Your task to perform on an android device: clear all cookies in the chrome app Image 0: 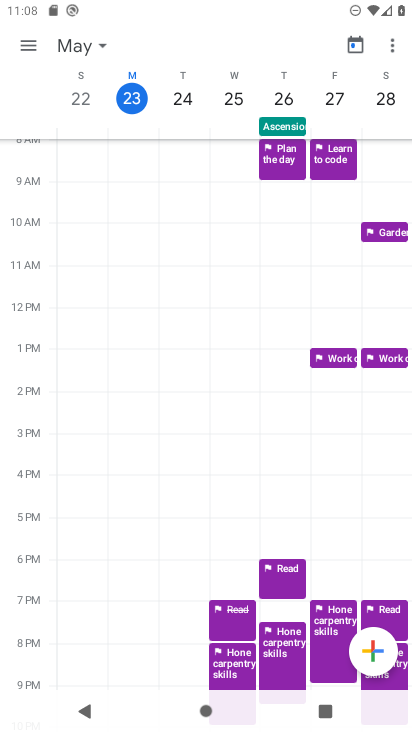
Step 0: press home button
Your task to perform on an android device: clear all cookies in the chrome app Image 1: 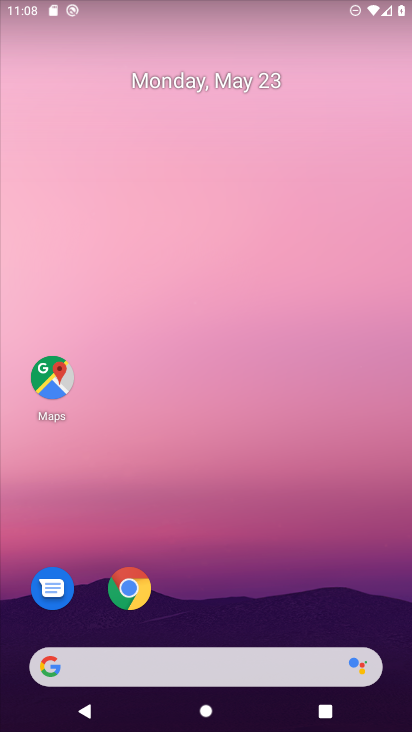
Step 1: click (127, 593)
Your task to perform on an android device: clear all cookies in the chrome app Image 2: 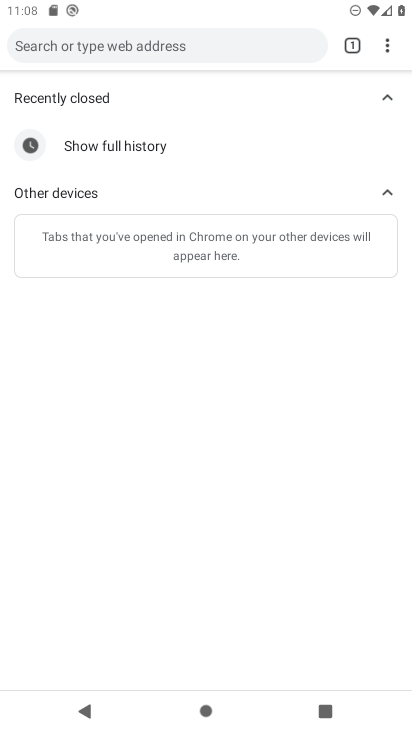
Step 2: click (390, 47)
Your task to perform on an android device: clear all cookies in the chrome app Image 3: 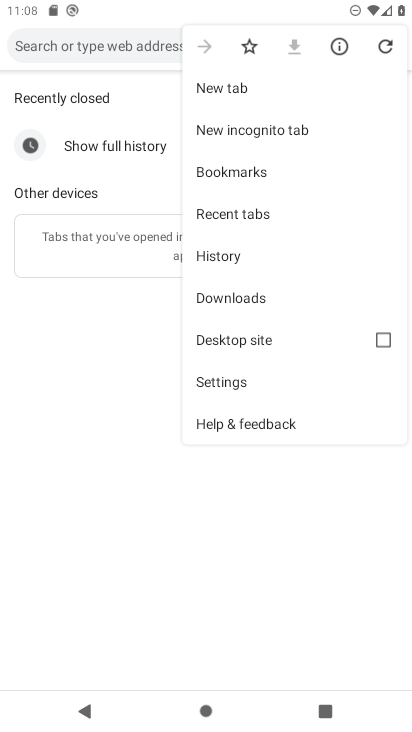
Step 3: click (221, 249)
Your task to perform on an android device: clear all cookies in the chrome app Image 4: 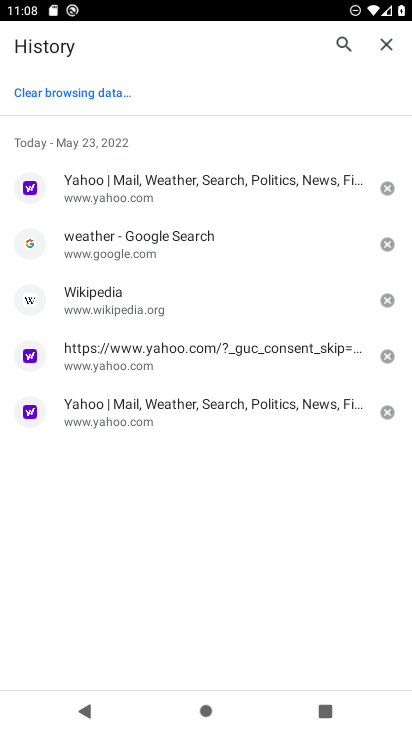
Step 4: click (80, 97)
Your task to perform on an android device: clear all cookies in the chrome app Image 5: 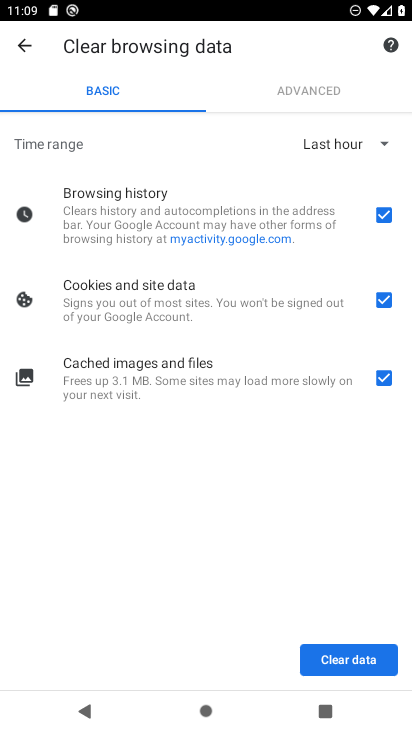
Step 5: click (364, 143)
Your task to perform on an android device: clear all cookies in the chrome app Image 6: 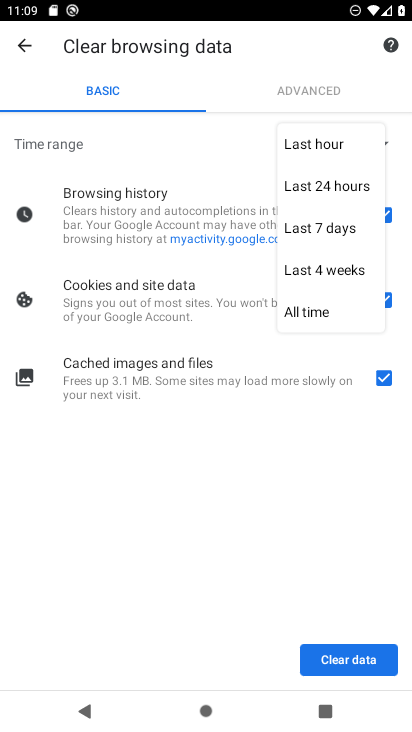
Step 6: click (312, 317)
Your task to perform on an android device: clear all cookies in the chrome app Image 7: 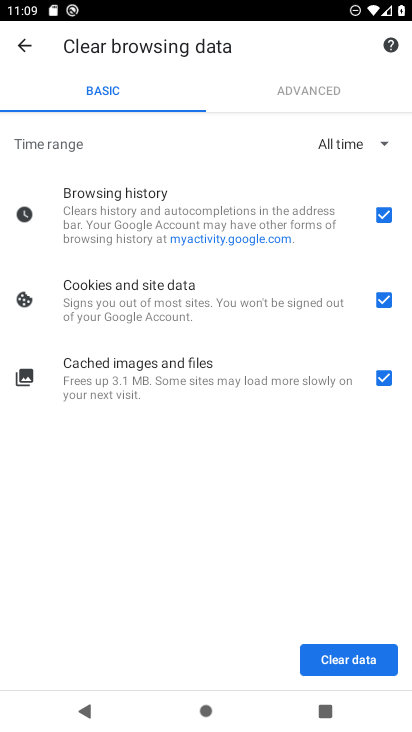
Step 7: click (371, 664)
Your task to perform on an android device: clear all cookies in the chrome app Image 8: 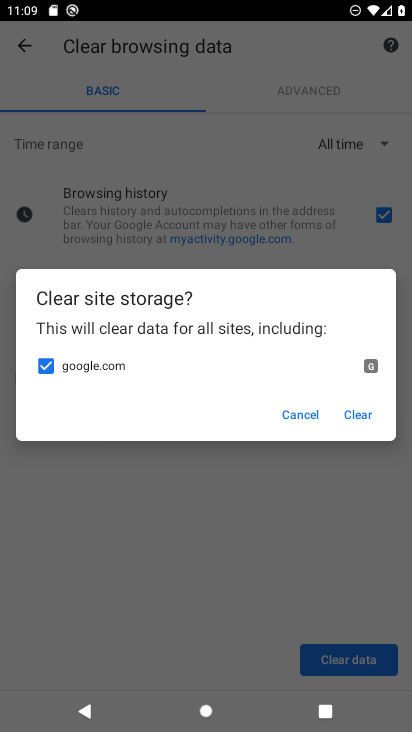
Step 8: click (359, 408)
Your task to perform on an android device: clear all cookies in the chrome app Image 9: 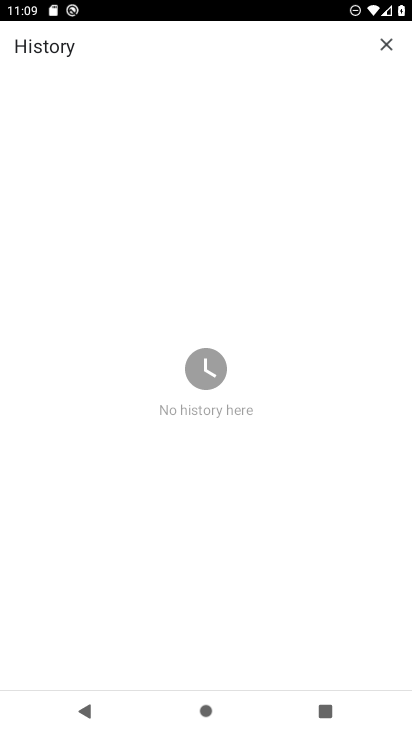
Step 9: task complete